Your task to perform on an android device: turn on translation in the chrome app Image 0: 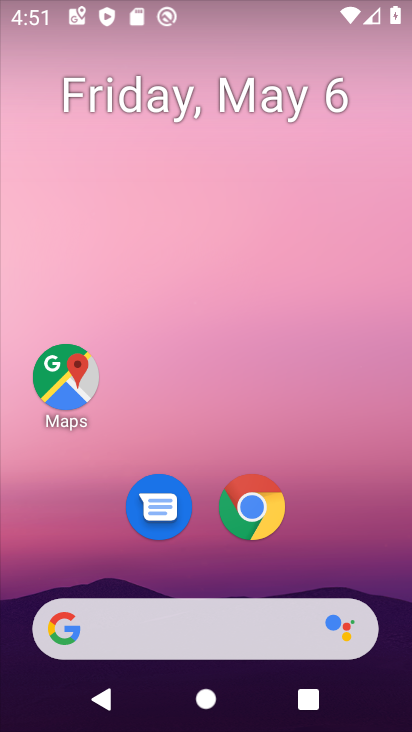
Step 0: click (251, 514)
Your task to perform on an android device: turn on translation in the chrome app Image 1: 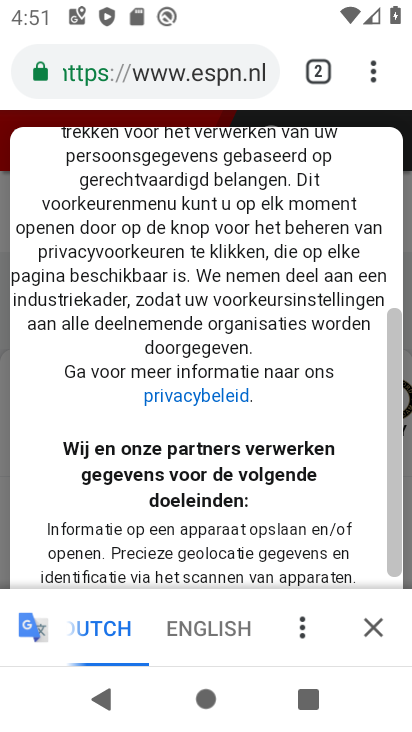
Step 1: click (373, 73)
Your task to perform on an android device: turn on translation in the chrome app Image 2: 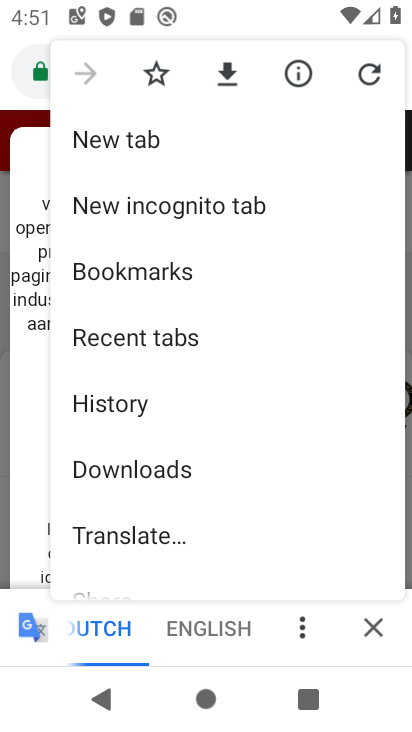
Step 2: drag from (291, 436) to (222, 28)
Your task to perform on an android device: turn on translation in the chrome app Image 3: 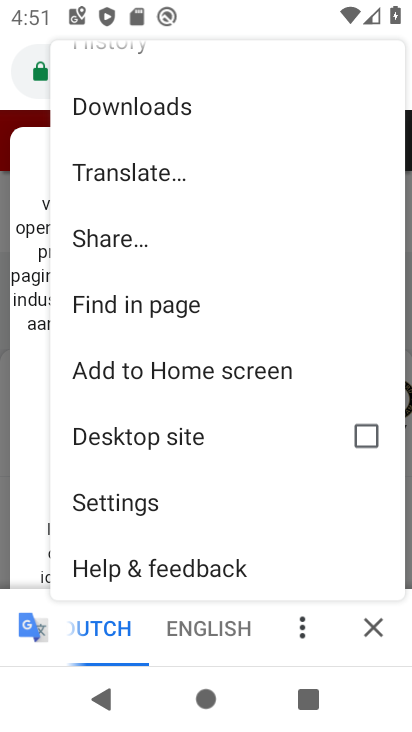
Step 3: click (130, 504)
Your task to perform on an android device: turn on translation in the chrome app Image 4: 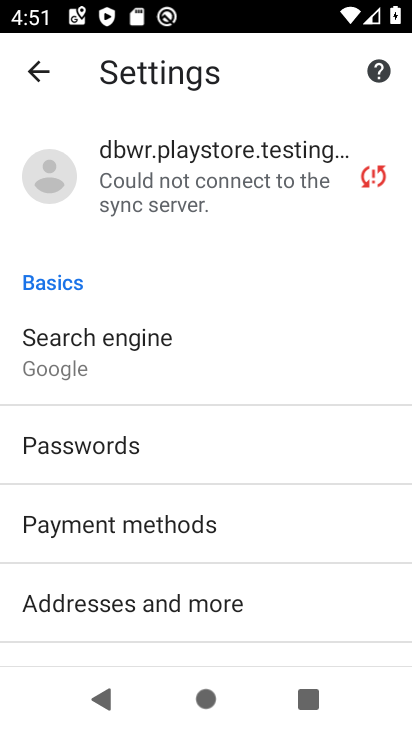
Step 4: drag from (225, 492) to (188, 246)
Your task to perform on an android device: turn on translation in the chrome app Image 5: 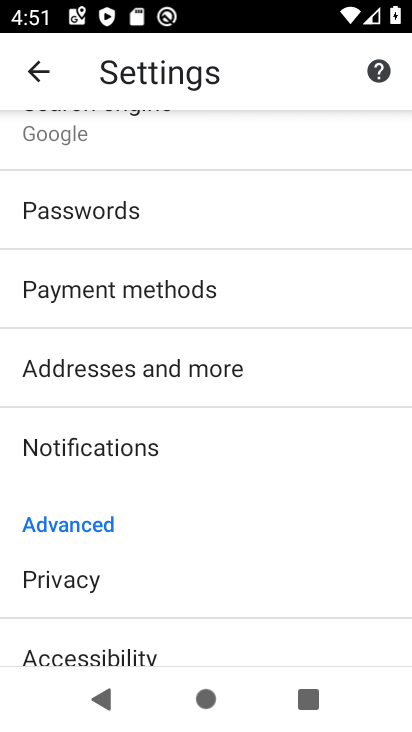
Step 5: drag from (208, 523) to (225, 201)
Your task to perform on an android device: turn on translation in the chrome app Image 6: 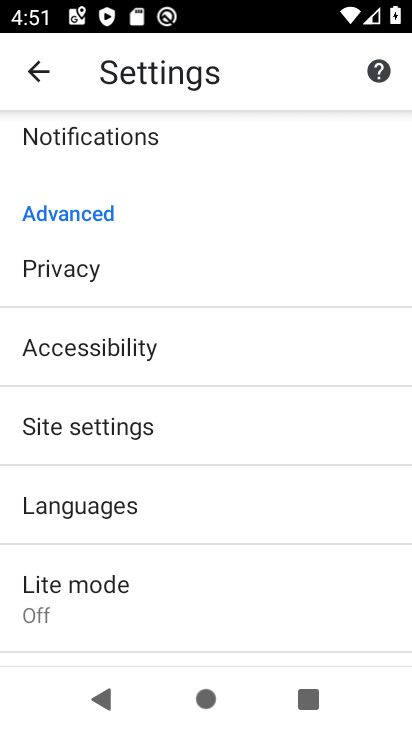
Step 6: drag from (204, 548) to (228, 250)
Your task to perform on an android device: turn on translation in the chrome app Image 7: 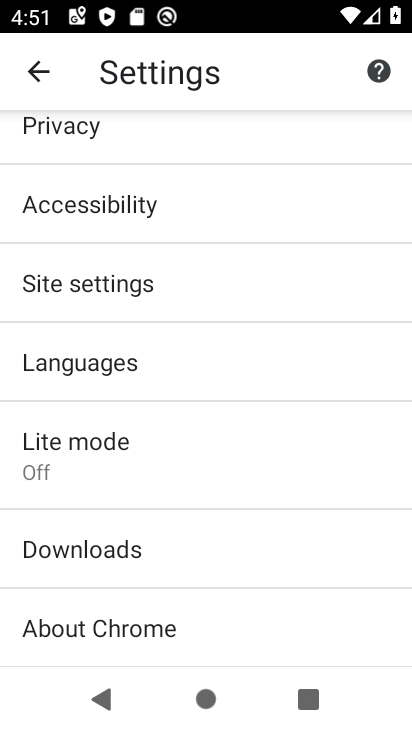
Step 7: click (92, 369)
Your task to perform on an android device: turn on translation in the chrome app Image 8: 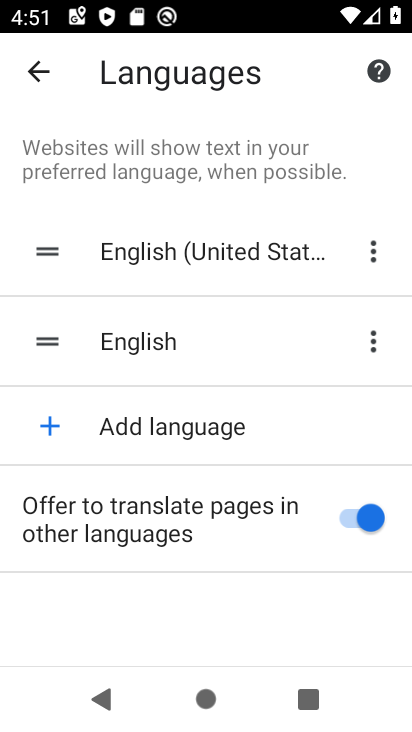
Step 8: task complete